Your task to perform on an android device: change keyboard looks Image 0: 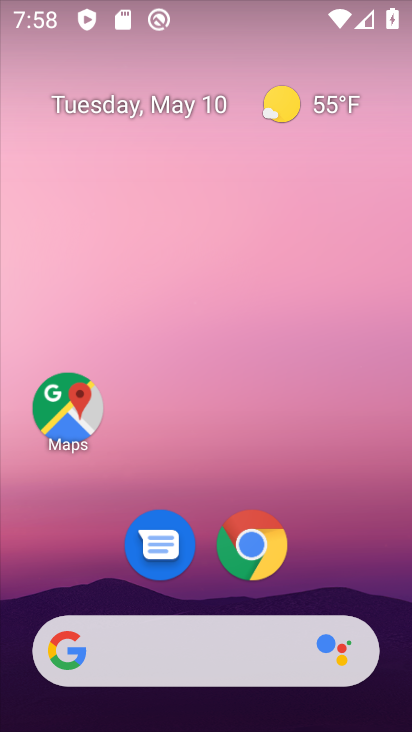
Step 0: drag from (211, 592) to (209, 140)
Your task to perform on an android device: change keyboard looks Image 1: 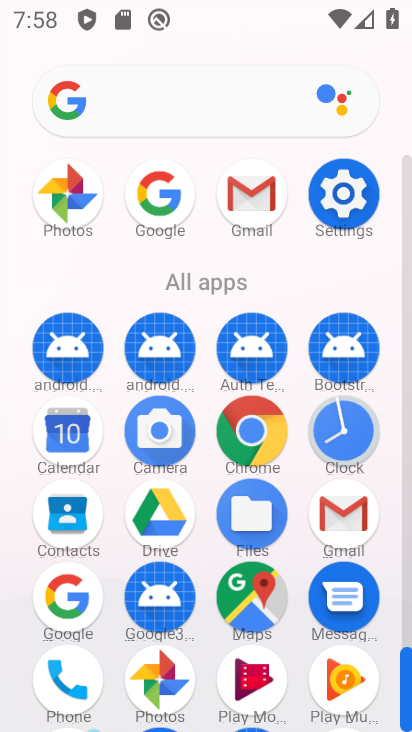
Step 1: click (324, 212)
Your task to perform on an android device: change keyboard looks Image 2: 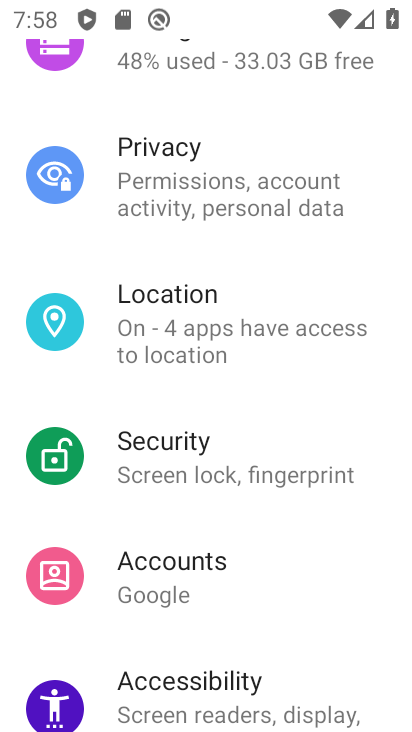
Step 2: drag from (251, 536) to (297, 232)
Your task to perform on an android device: change keyboard looks Image 3: 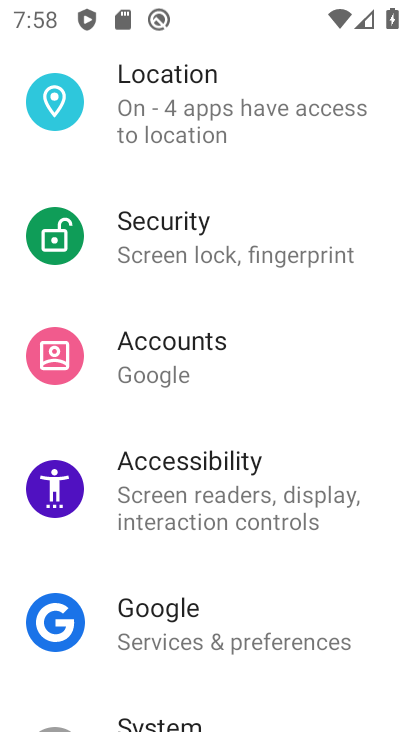
Step 3: drag from (241, 650) to (284, 285)
Your task to perform on an android device: change keyboard looks Image 4: 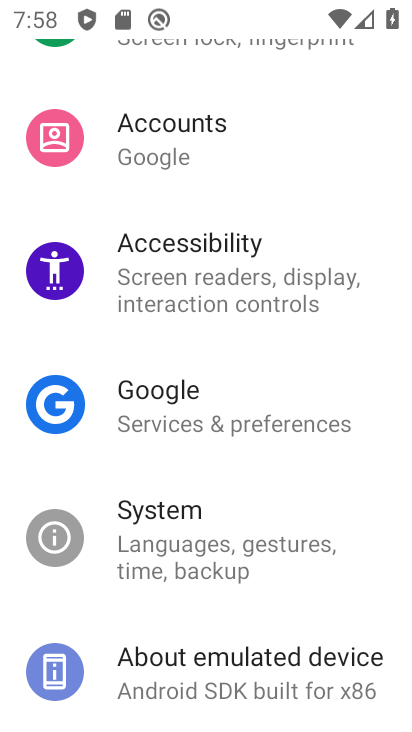
Step 4: click (229, 527)
Your task to perform on an android device: change keyboard looks Image 5: 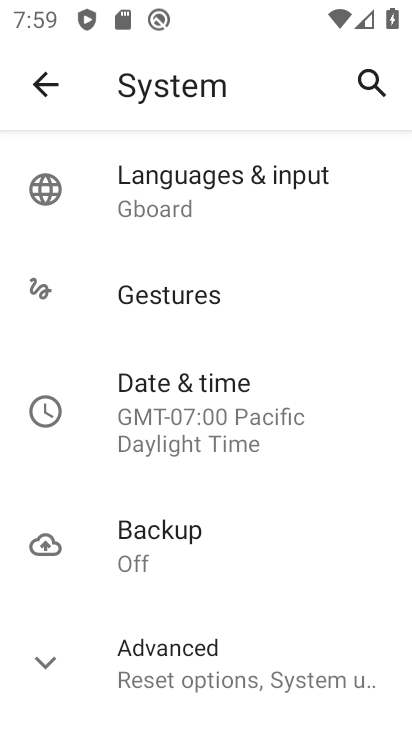
Step 5: click (195, 191)
Your task to perform on an android device: change keyboard looks Image 6: 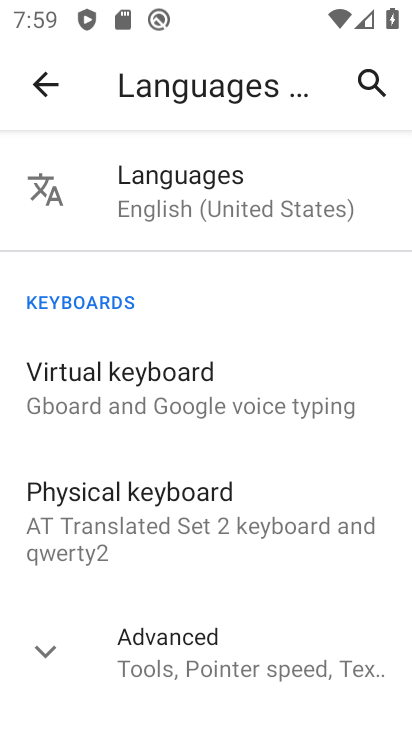
Step 6: click (172, 363)
Your task to perform on an android device: change keyboard looks Image 7: 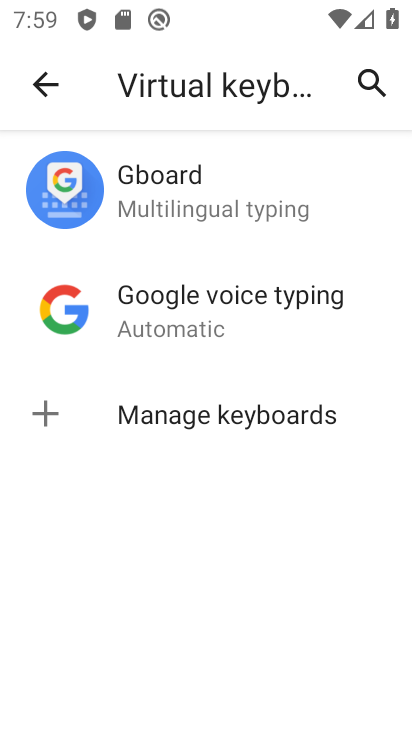
Step 7: click (178, 194)
Your task to perform on an android device: change keyboard looks Image 8: 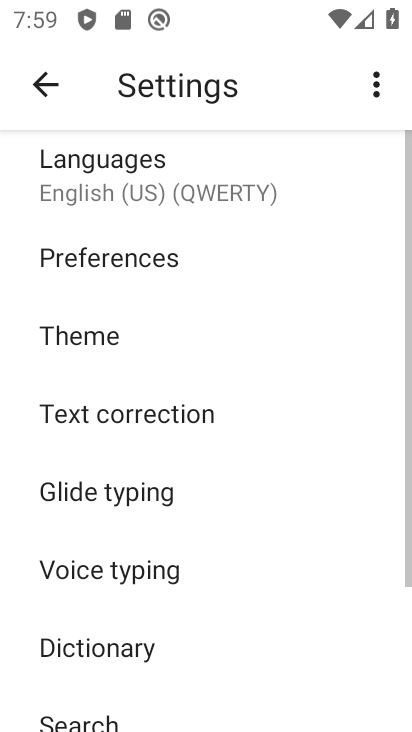
Step 8: click (140, 339)
Your task to perform on an android device: change keyboard looks Image 9: 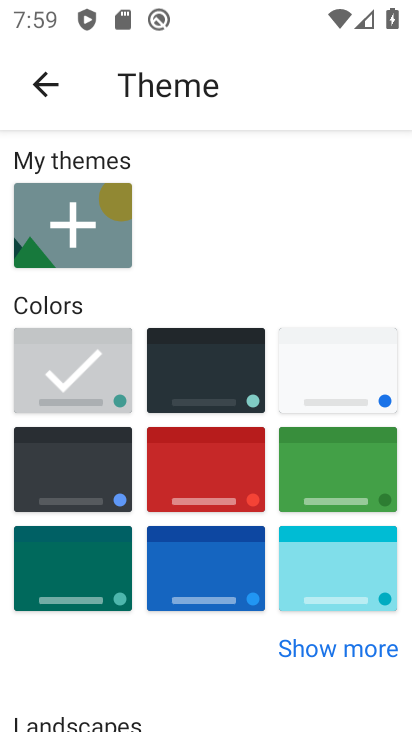
Step 9: click (293, 378)
Your task to perform on an android device: change keyboard looks Image 10: 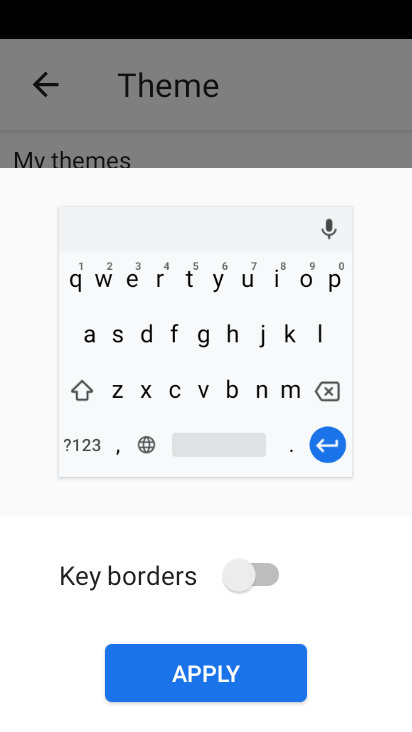
Step 10: click (195, 692)
Your task to perform on an android device: change keyboard looks Image 11: 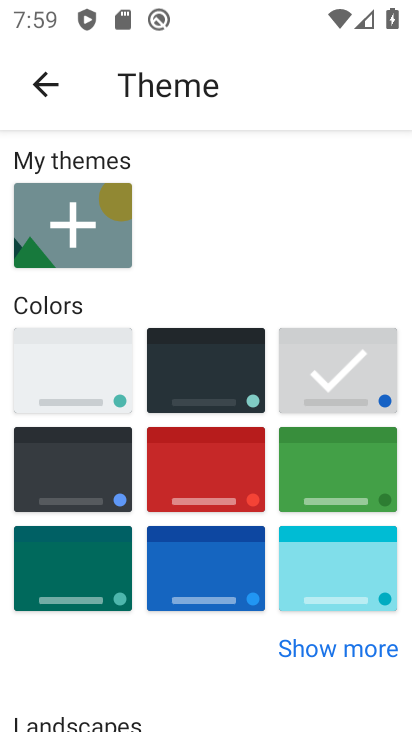
Step 11: task complete